Your task to perform on an android device: Open display settings Image 0: 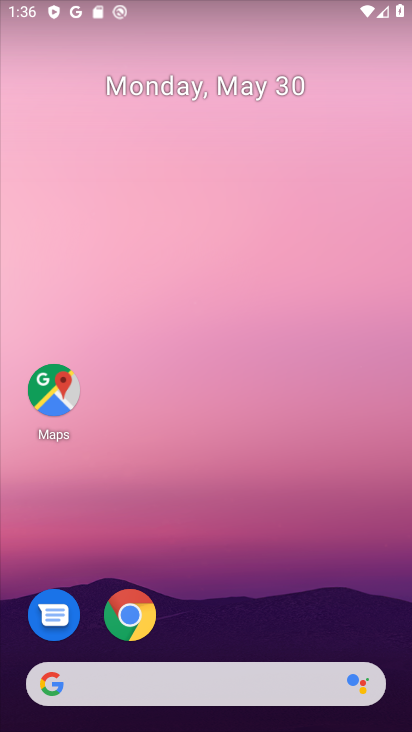
Step 0: drag from (344, 564) to (310, 48)
Your task to perform on an android device: Open display settings Image 1: 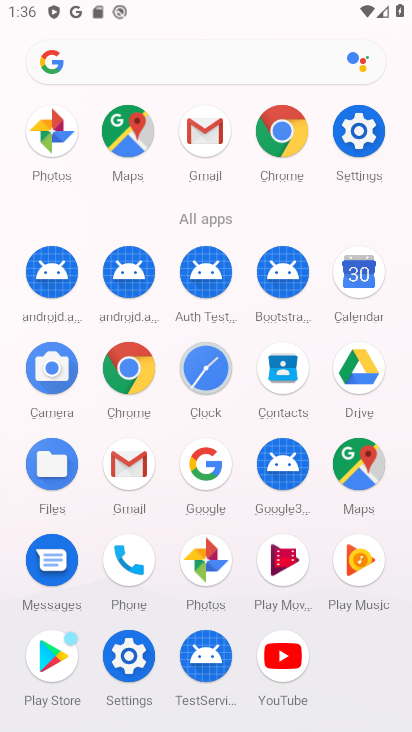
Step 1: click (370, 132)
Your task to perform on an android device: Open display settings Image 2: 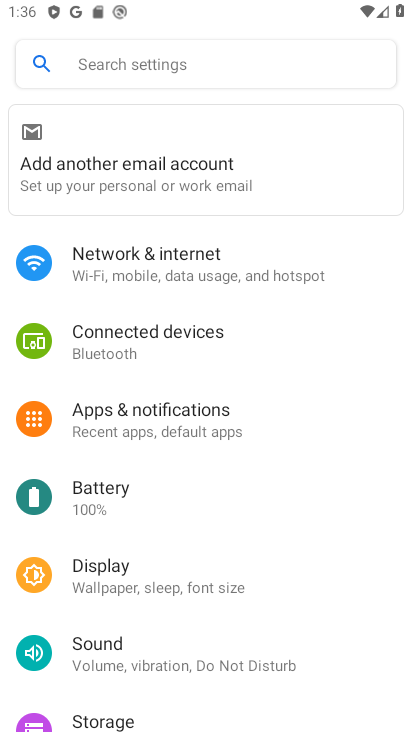
Step 2: click (163, 571)
Your task to perform on an android device: Open display settings Image 3: 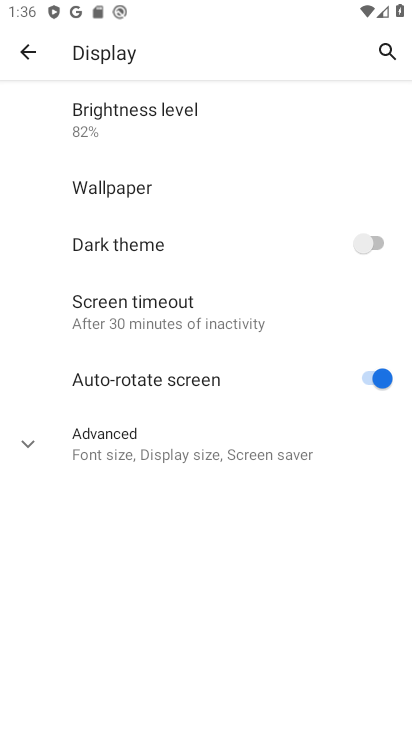
Step 3: task complete